Your task to perform on an android device: set an alarm Image 0: 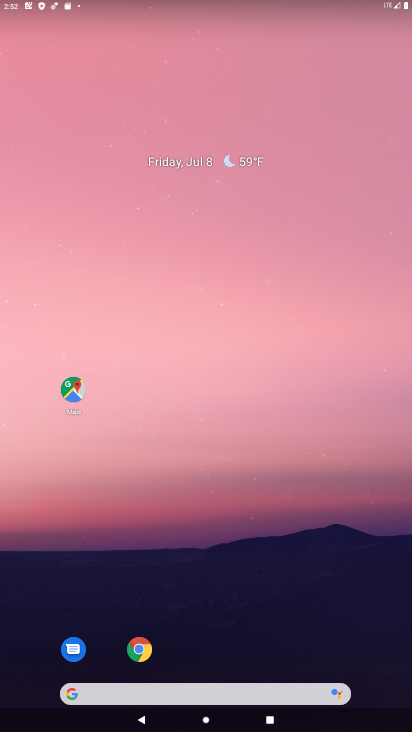
Step 0: drag from (293, 534) to (220, 45)
Your task to perform on an android device: set an alarm Image 1: 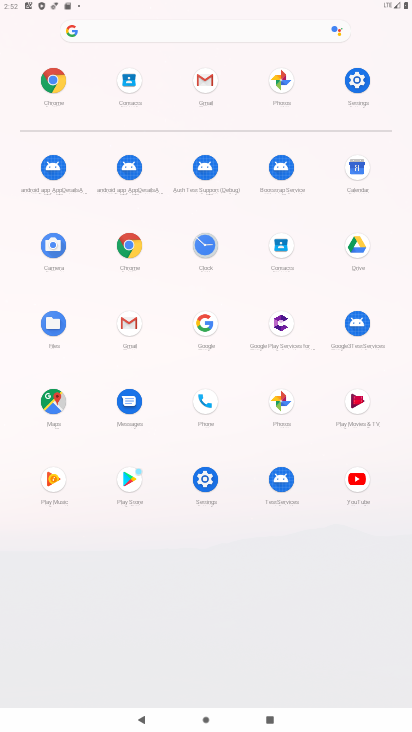
Step 1: click (201, 242)
Your task to perform on an android device: set an alarm Image 2: 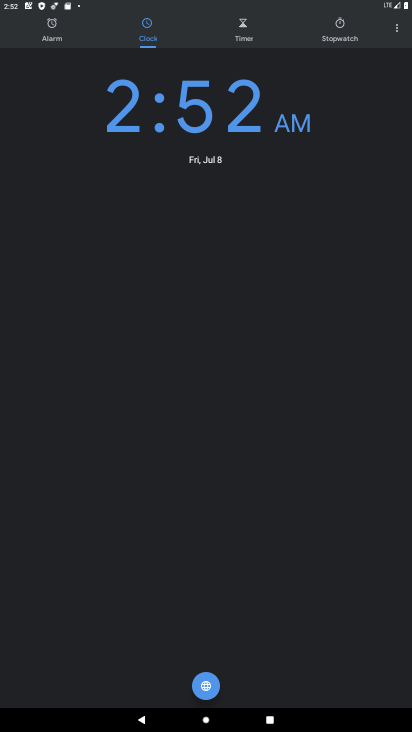
Step 2: click (59, 46)
Your task to perform on an android device: set an alarm Image 3: 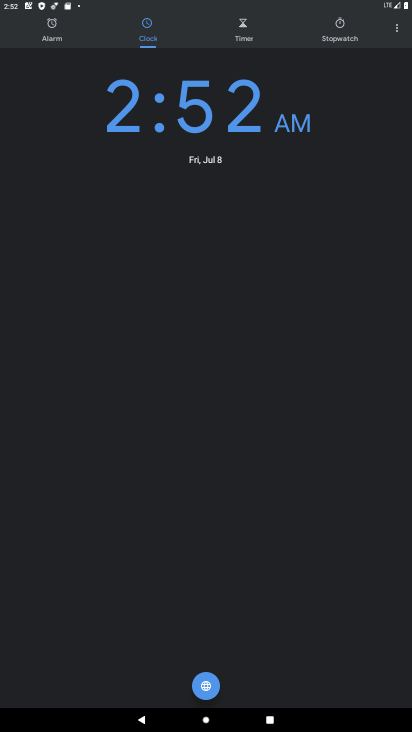
Step 3: click (54, 29)
Your task to perform on an android device: set an alarm Image 4: 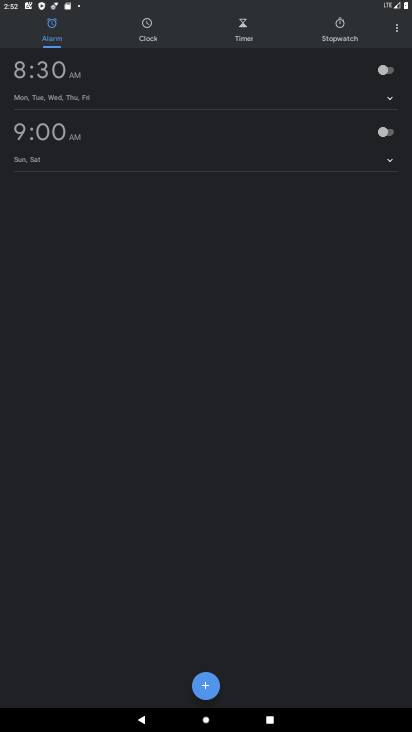
Step 4: click (204, 685)
Your task to perform on an android device: set an alarm Image 5: 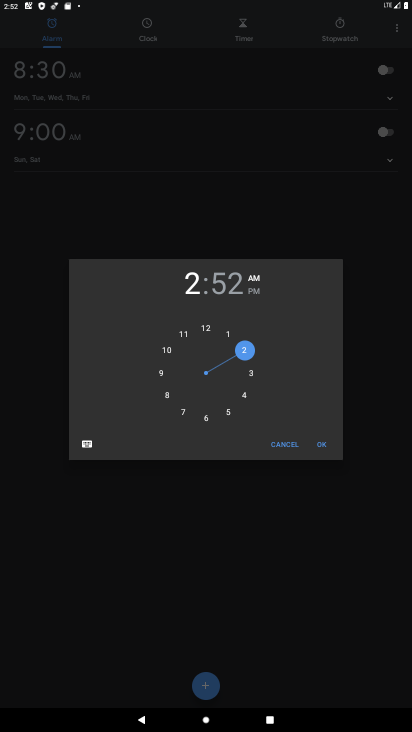
Step 5: click (323, 438)
Your task to perform on an android device: set an alarm Image 6: 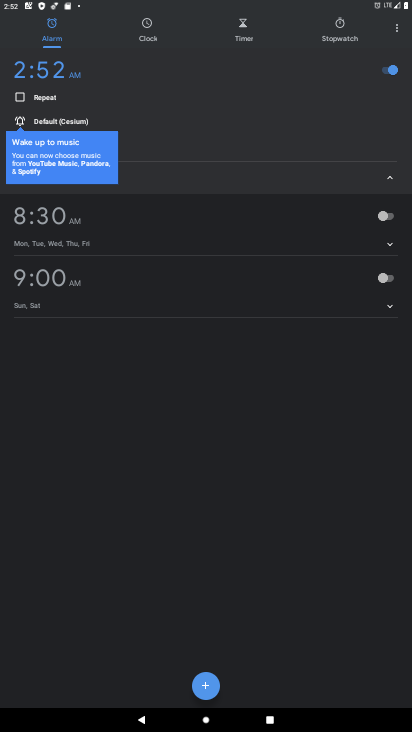
Step 6: task complete